Your task to perform on an android device: Go to Google Image 0: 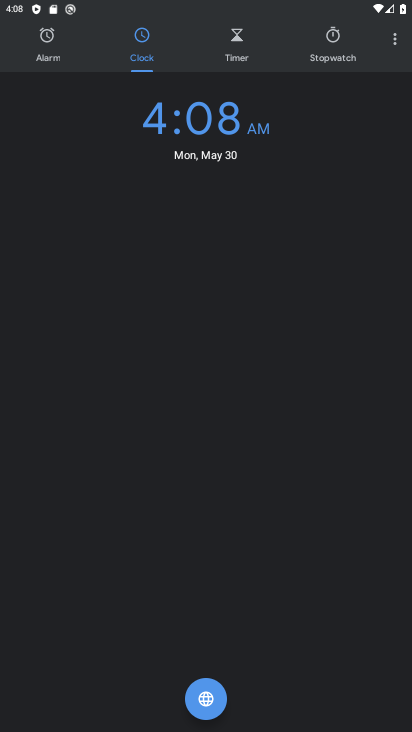
Step 0: press home button
Your task to perform on an android device: Go to Google Image 1: 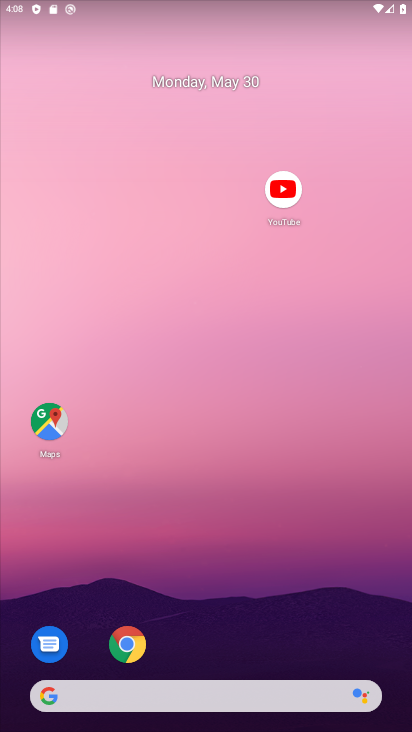
Step 1: click (252, 708)
Your task to perform on an android device: Go to Google Image 2: 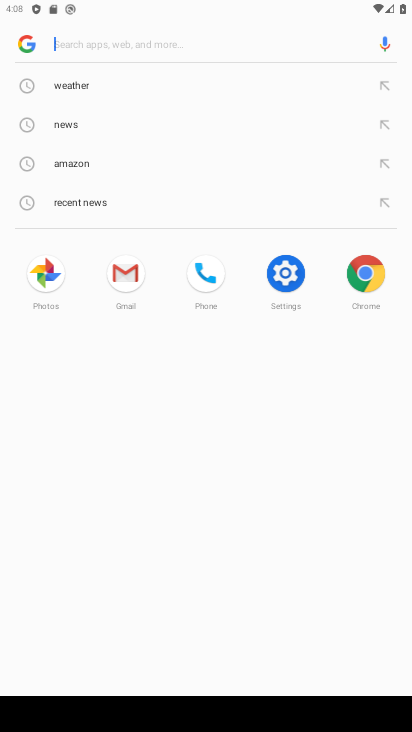
Step 2: task complete